Your task to perform on an android device: Open location settings Image 0: 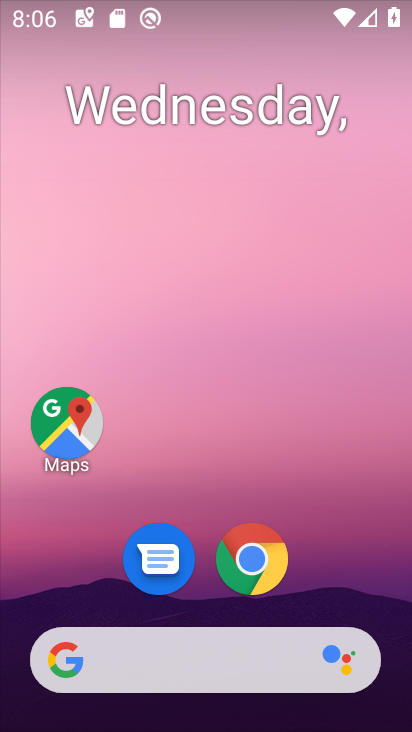
Step 0: drag from (389, 589) to (357, 172)
Your task to perform on an android device: Open location settings Image 1: 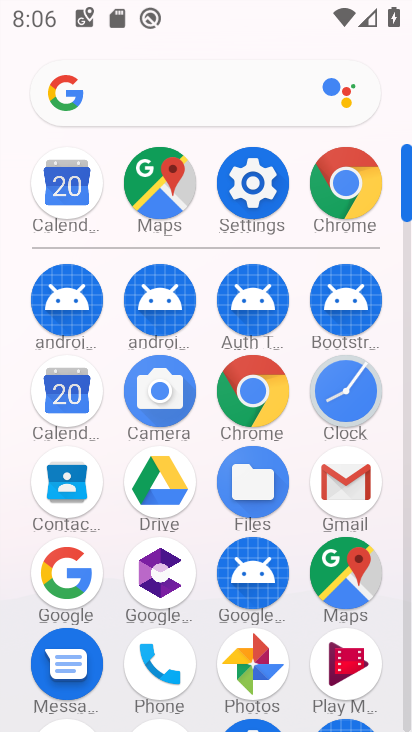
Step 1: click (236, 188)
Your task to perform on an android device: Open location settings Image 2: 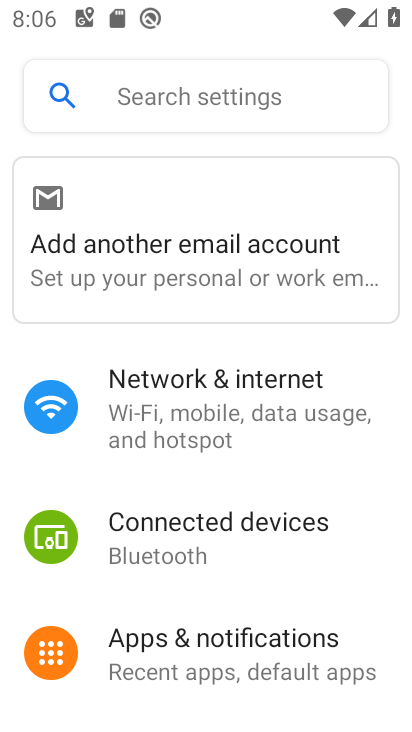
Step 2: drag from (283, 561) to (292, 243)
Your task to perform on an android device: Open location settings Image 3: 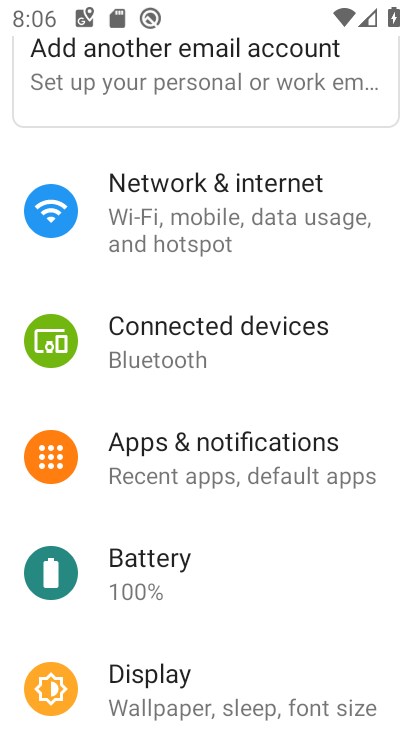
Step 3: drag from (268, 594) to (291, 225)
Your task to perform on an android device: Open location settings Image 4: 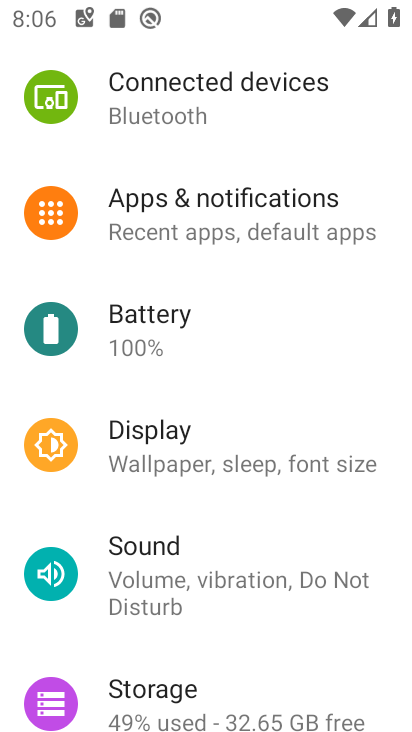
Step 4: drag from (255, 643) to (317, 282)
Your task to perform on an android device: Open location settings Image 5: 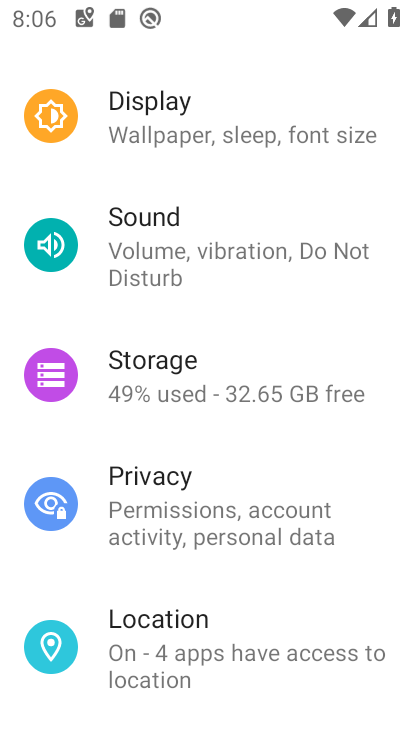
Step 5: click (193, 641)
Your task to perform on an android device: Open location settings Image 6: 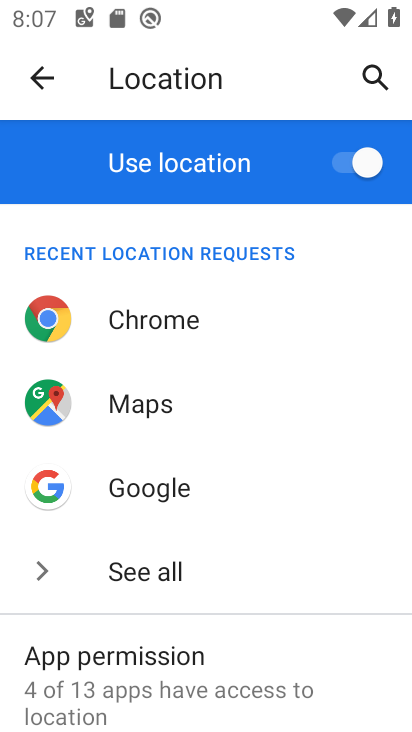
Step 6: task complete